Your task to perform on an android device: Add asus rog to the cart on amazon Image 0: 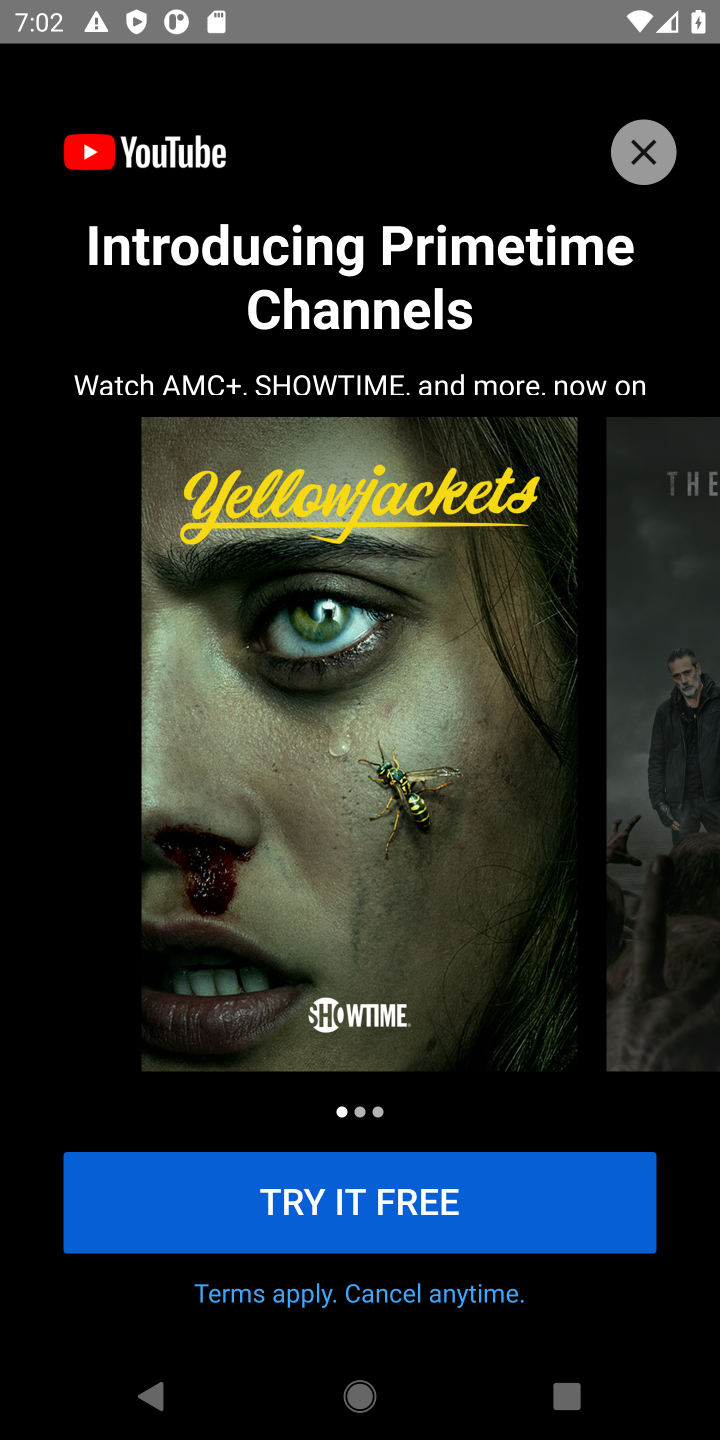
Step 0: press home button
Your task to perform on an android device: Add asus rog to the cart on amazon Image 1: 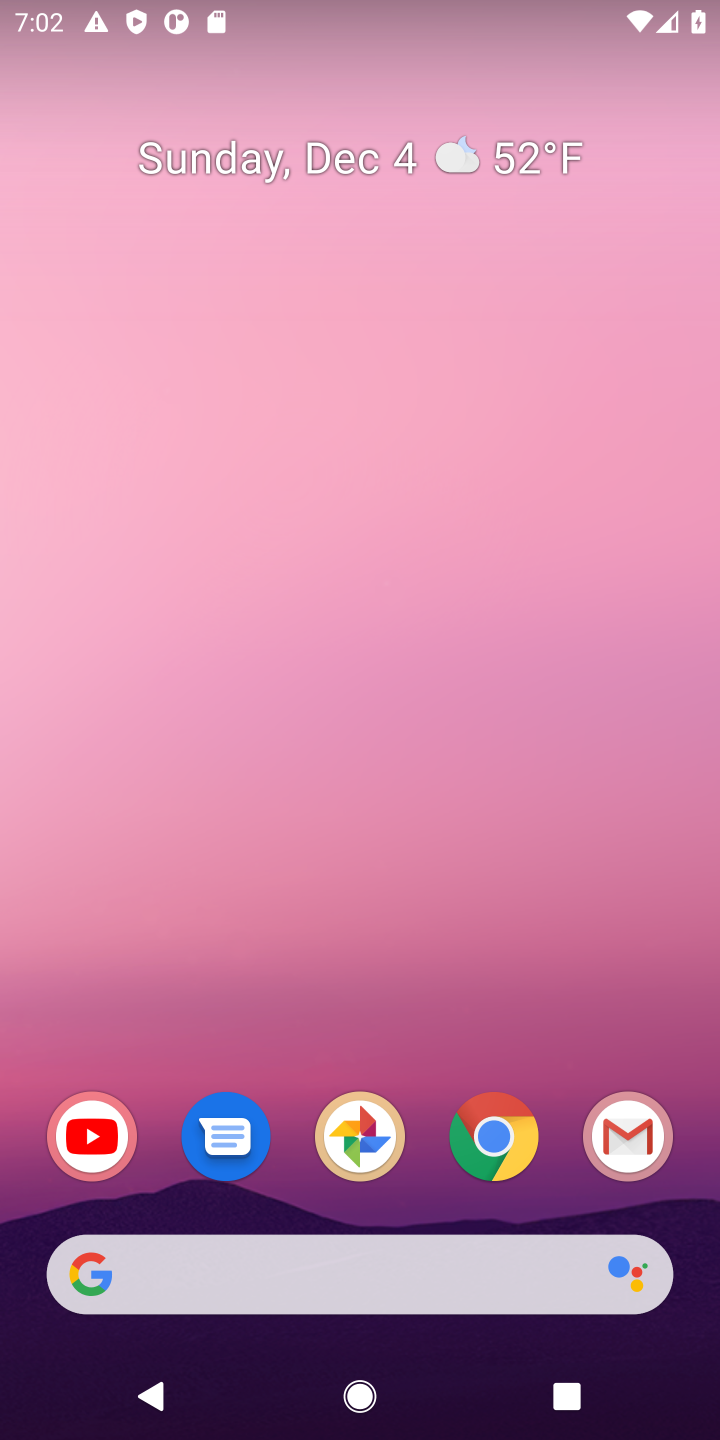
Step 1: click (502, 1140)
Your task to perform on an android device: Add asus rog to the cart on amazon Image 2: 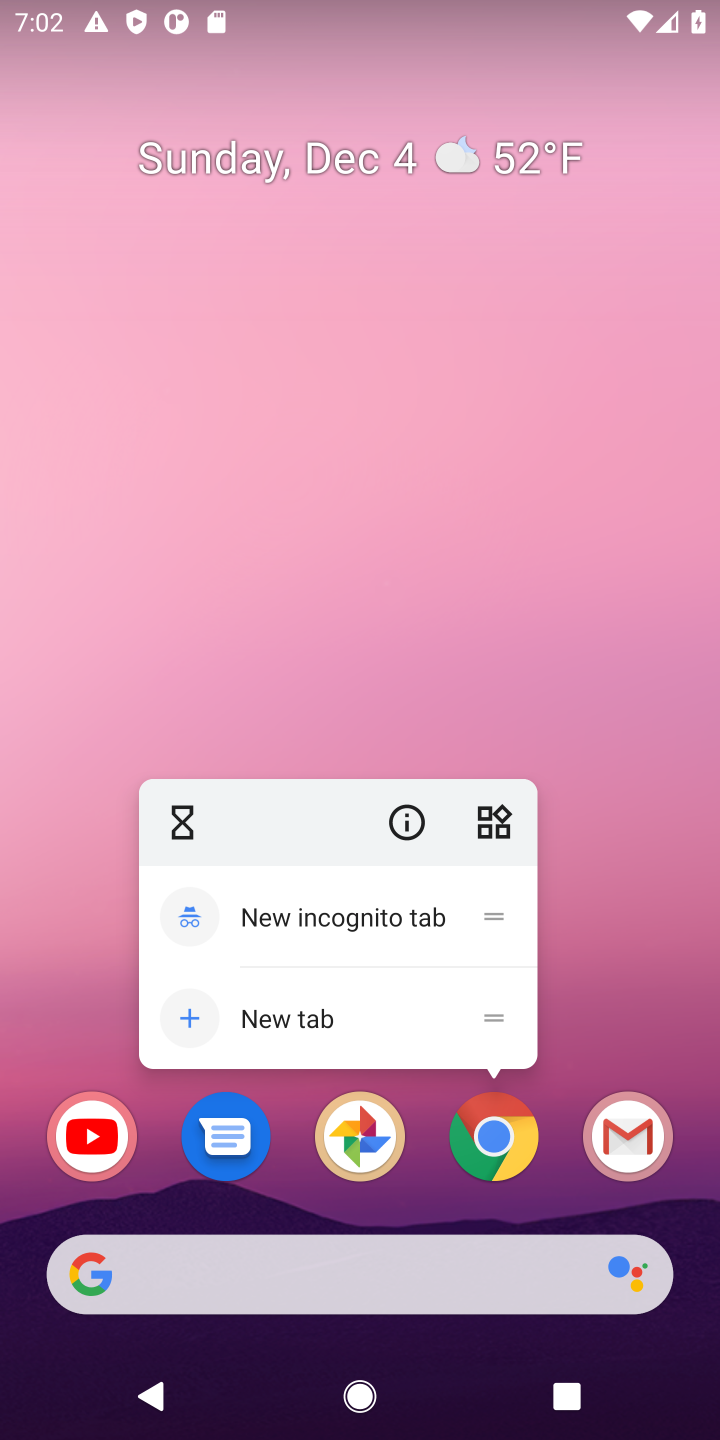
Step 2: click (502, 1140)
Your task to perform on an android device: Add asus rog to the cart on amazon Image 3: 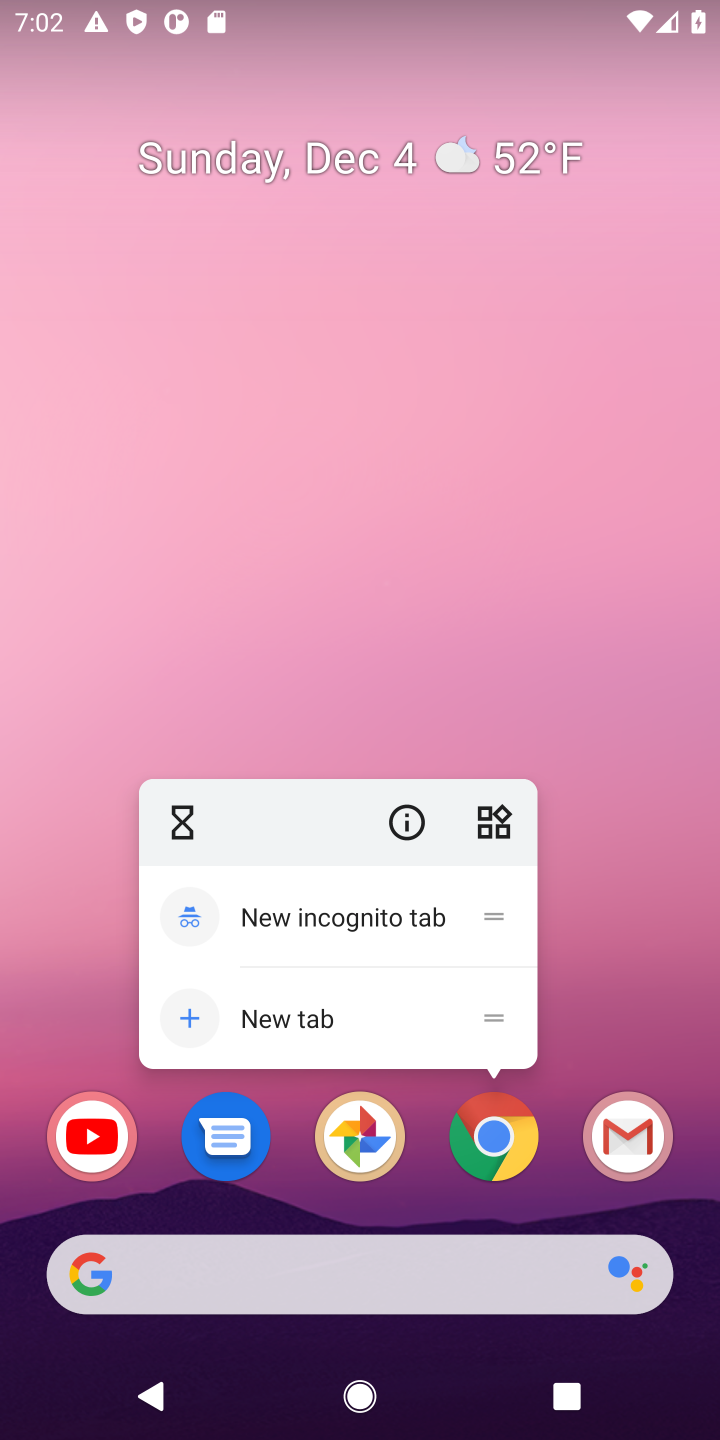
Step 3: click (502, 1140)
Your task to perform on an android device: Add asus rog to the cart on amazon Image 4: 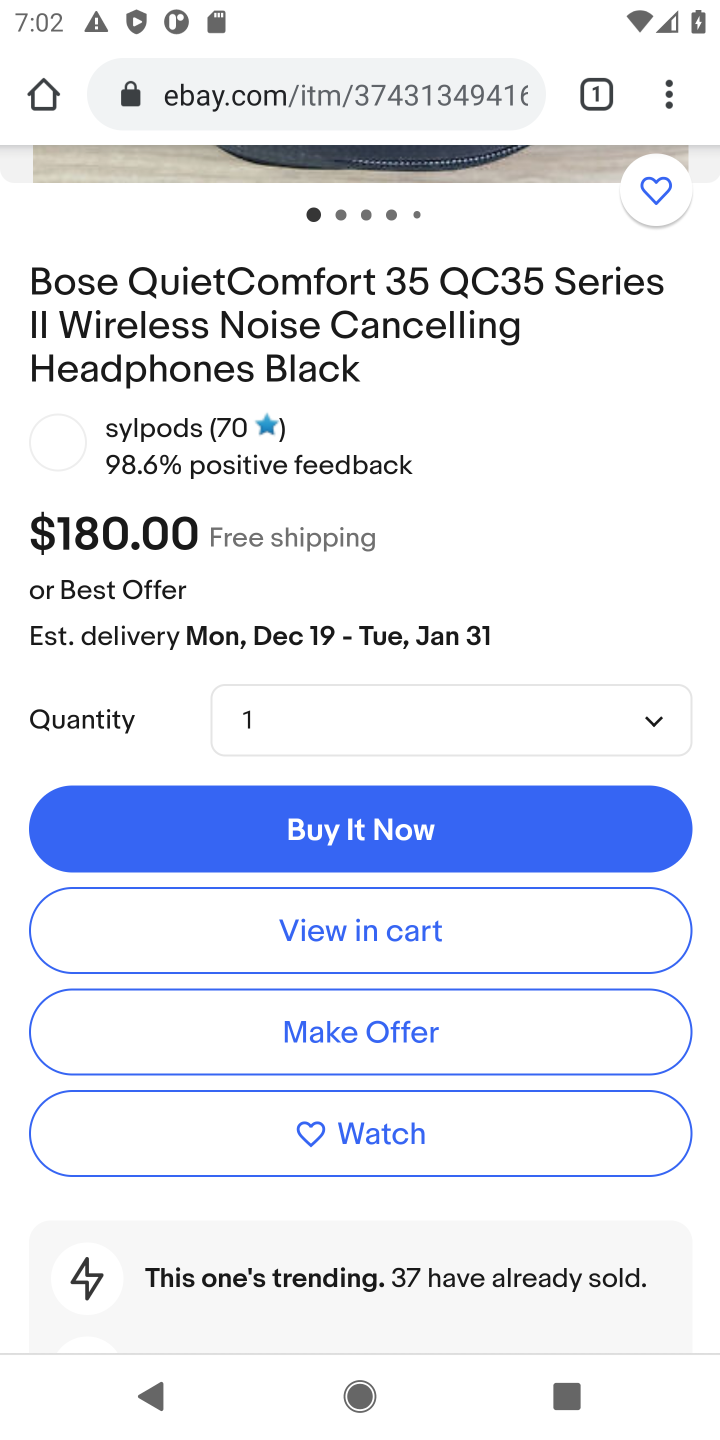
Step 4: click (235, 96)
Your task to perform on an android device: Add asus rog to the cart on amazon Image 5: 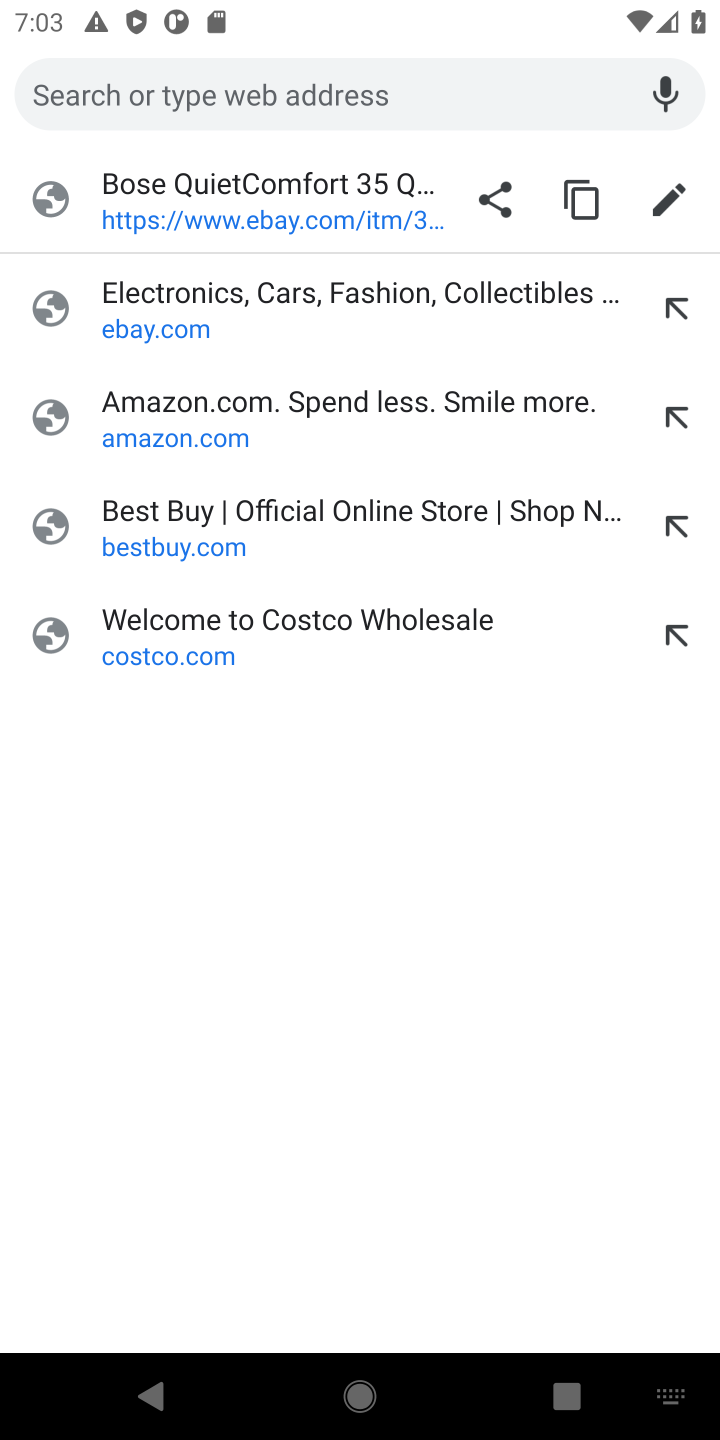
Step 5: click (152, 405)
Your task to perform on an android device: Add asus rog to the cart on amazon Image 6: 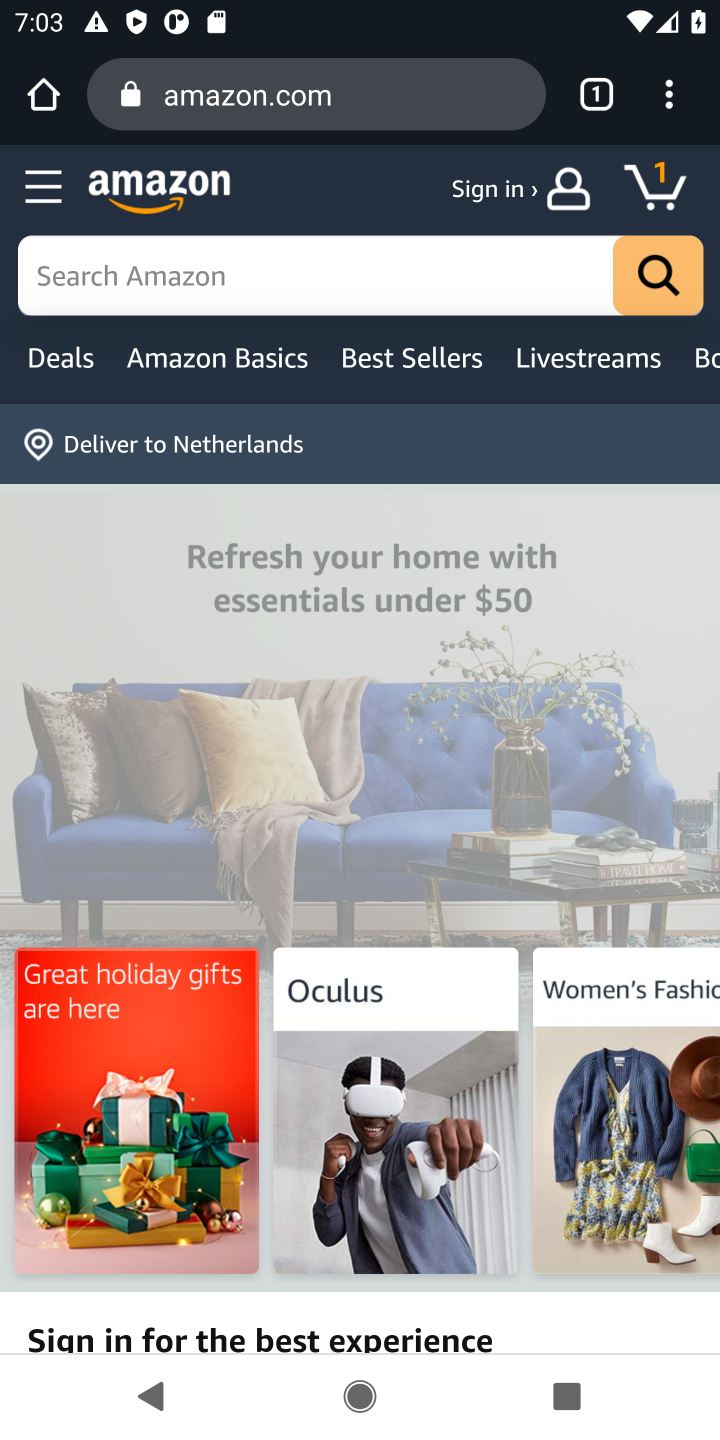
Step 6: click (177, 252)
Your task to perform on an android device: Add asus rog to the cart on amazon Image 7: 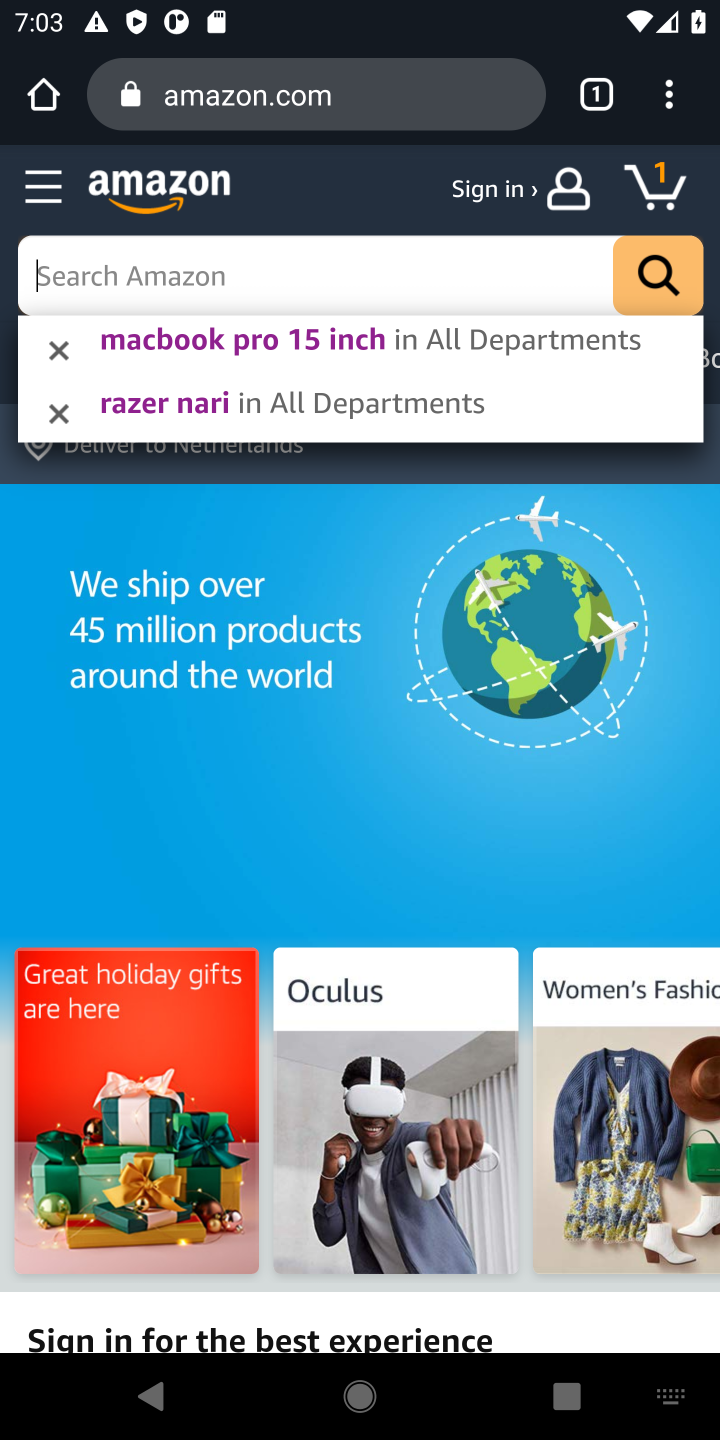
Step 7: type "asus rog "
Your task to perform on an android device: Add asus rog to the cart on amazon Image 8: 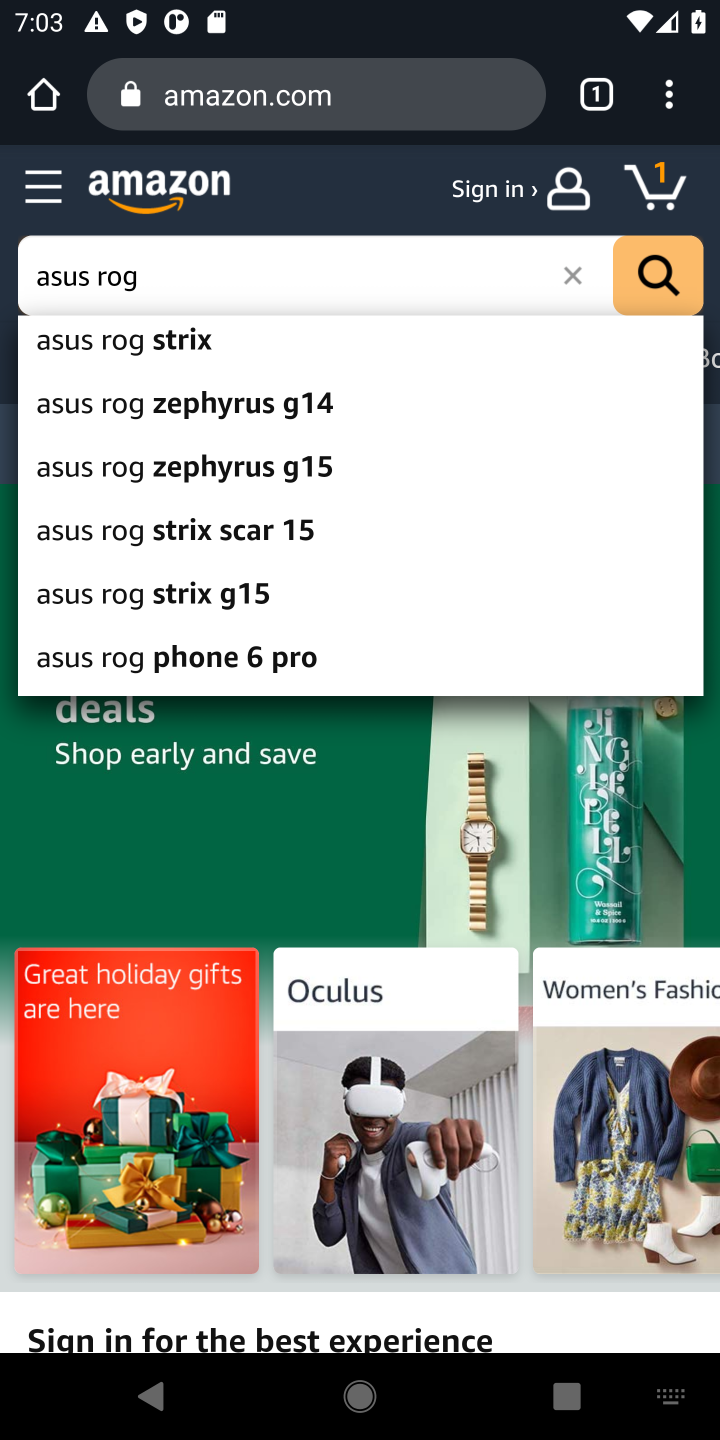
Step 8: click (645, 277)
Your task to perform on an android device: Add asus rog to the cart on amazon Image 9: 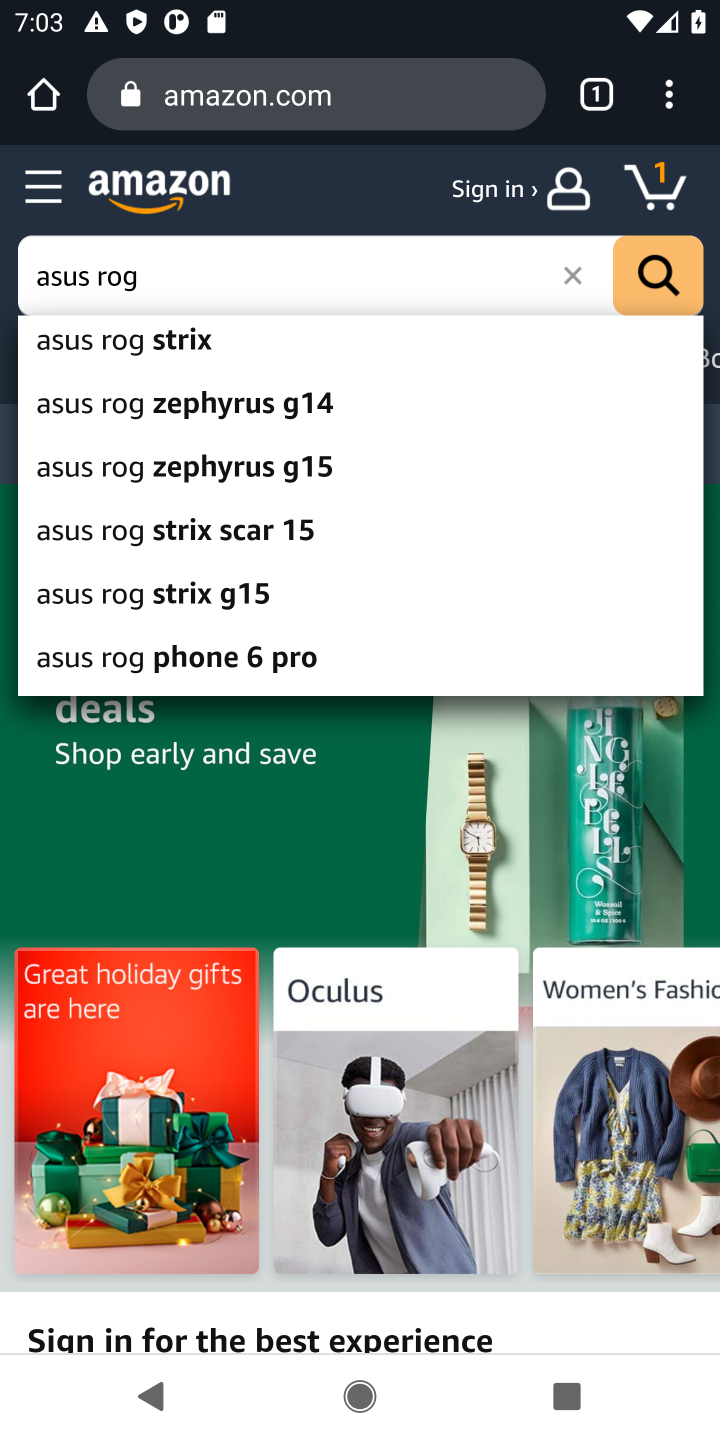
Step 9: click (656, 272)
Your task to perform on an android device: Add asus rog to the cart on amazon Image 10: 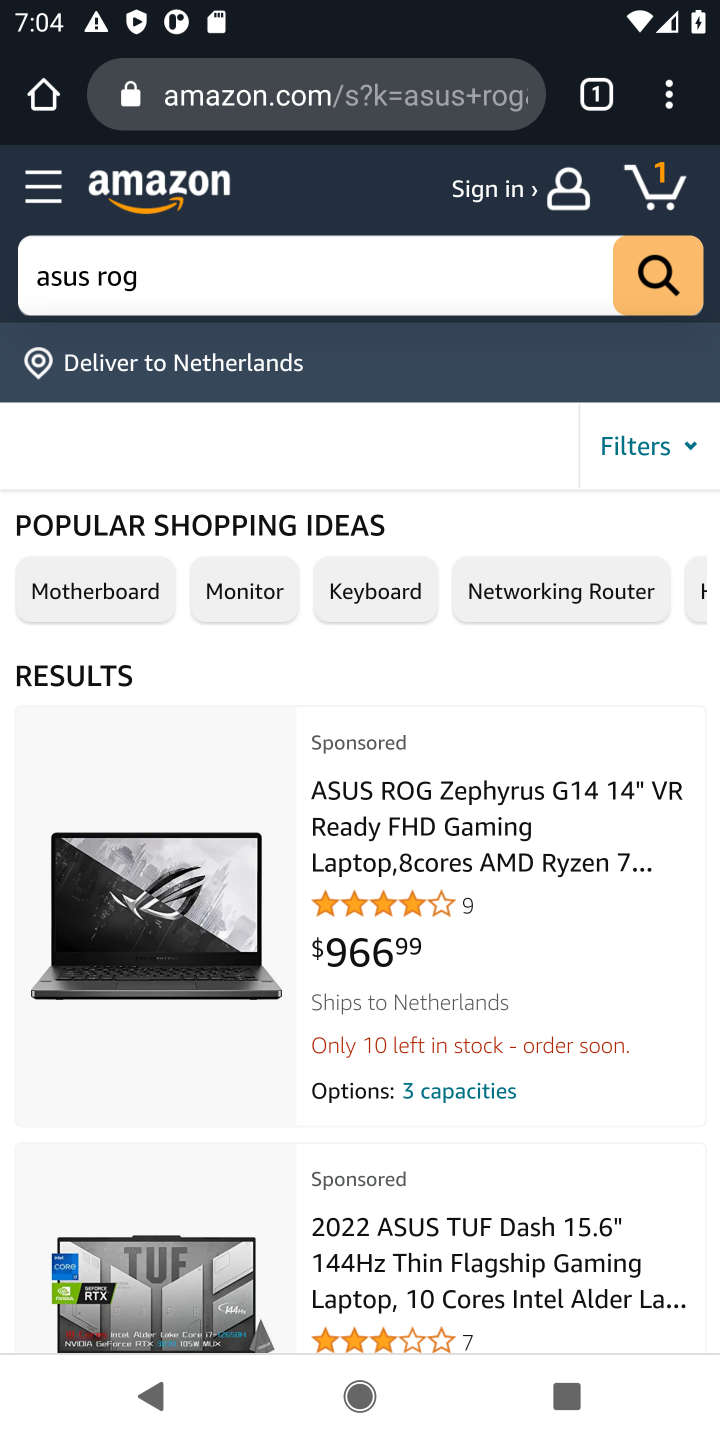
Step 10: click (377, 881)
Your task to perform on an android device: Add asus rog to the cart on amazon Image 11: 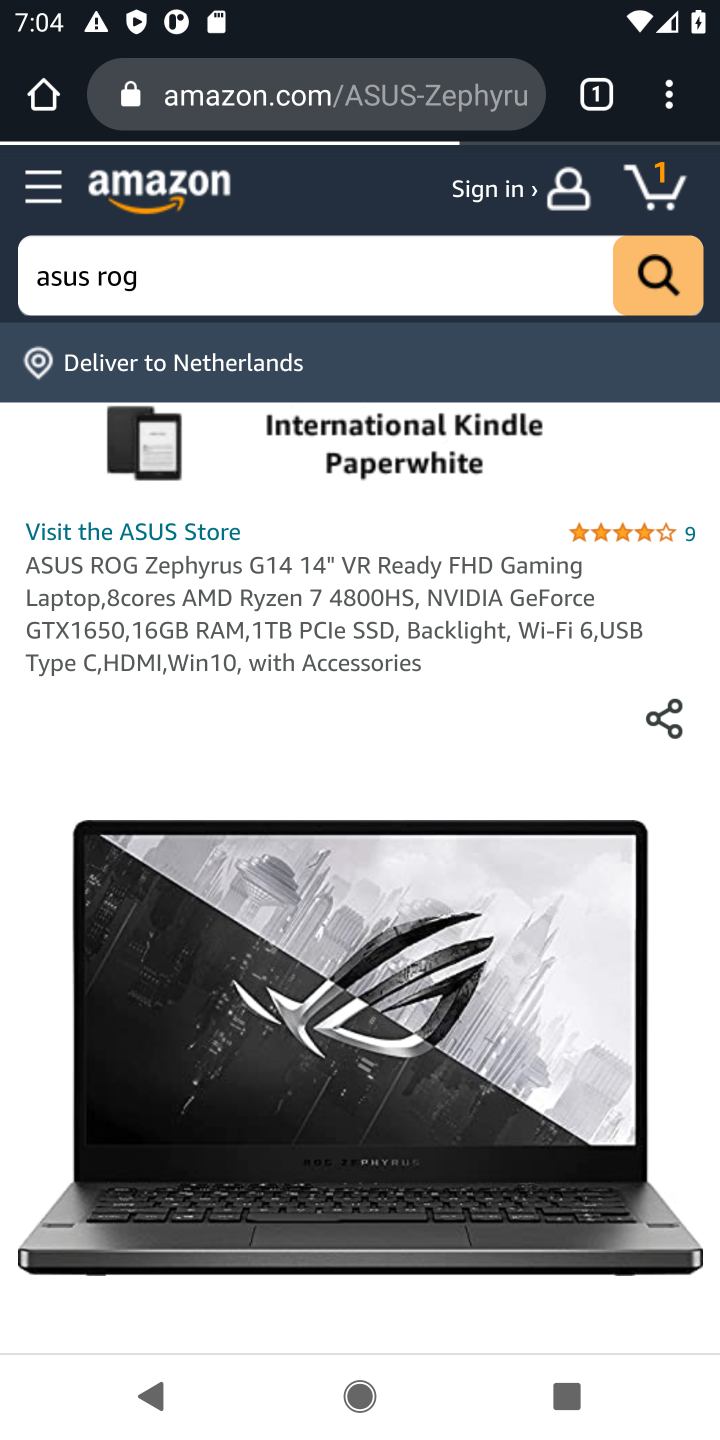
Step 11: drag from (374, 1005) to (369, 419)
Your task to perform on an android device: Add asus rog to the cart on amazon Image 12: 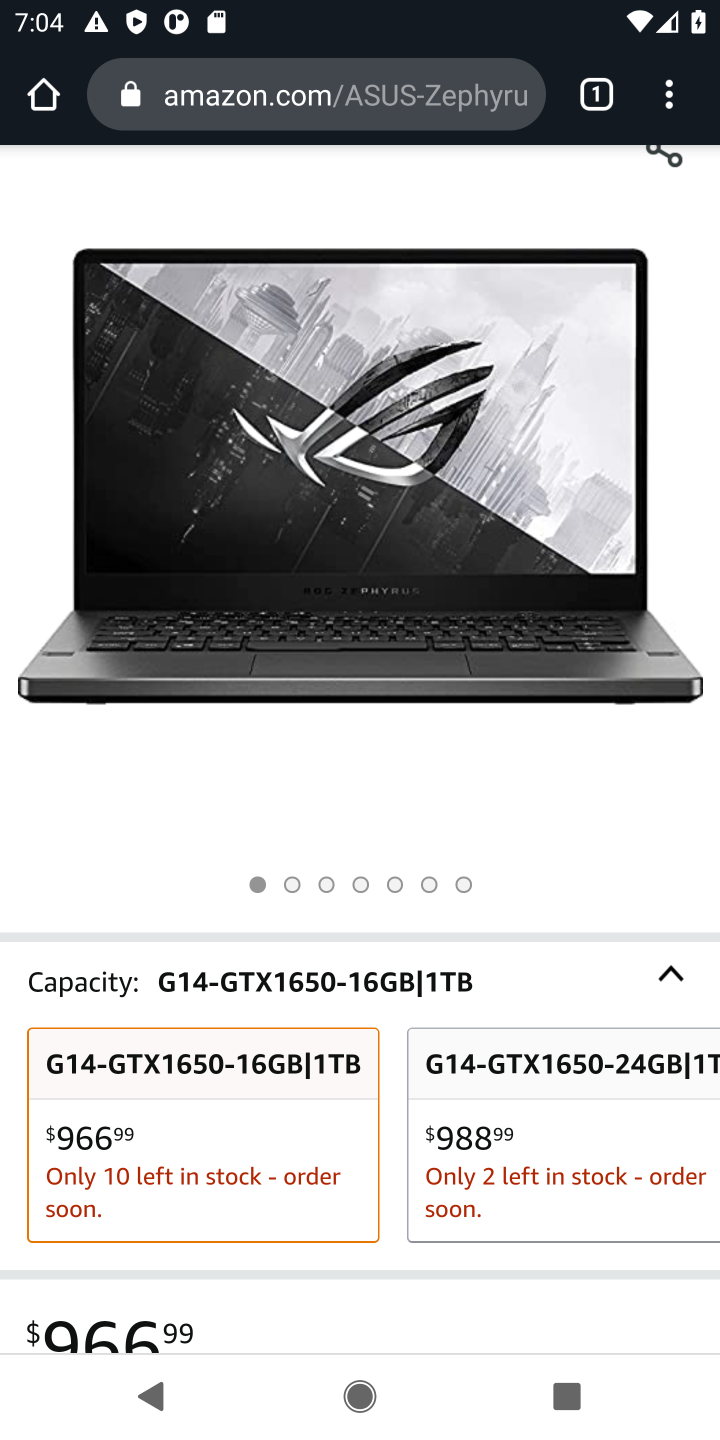
Step 12: drag from (654, 1182) to (593, 505)
Your task to perform on an android device: Add asus rog to the cart on amazon Image 13: 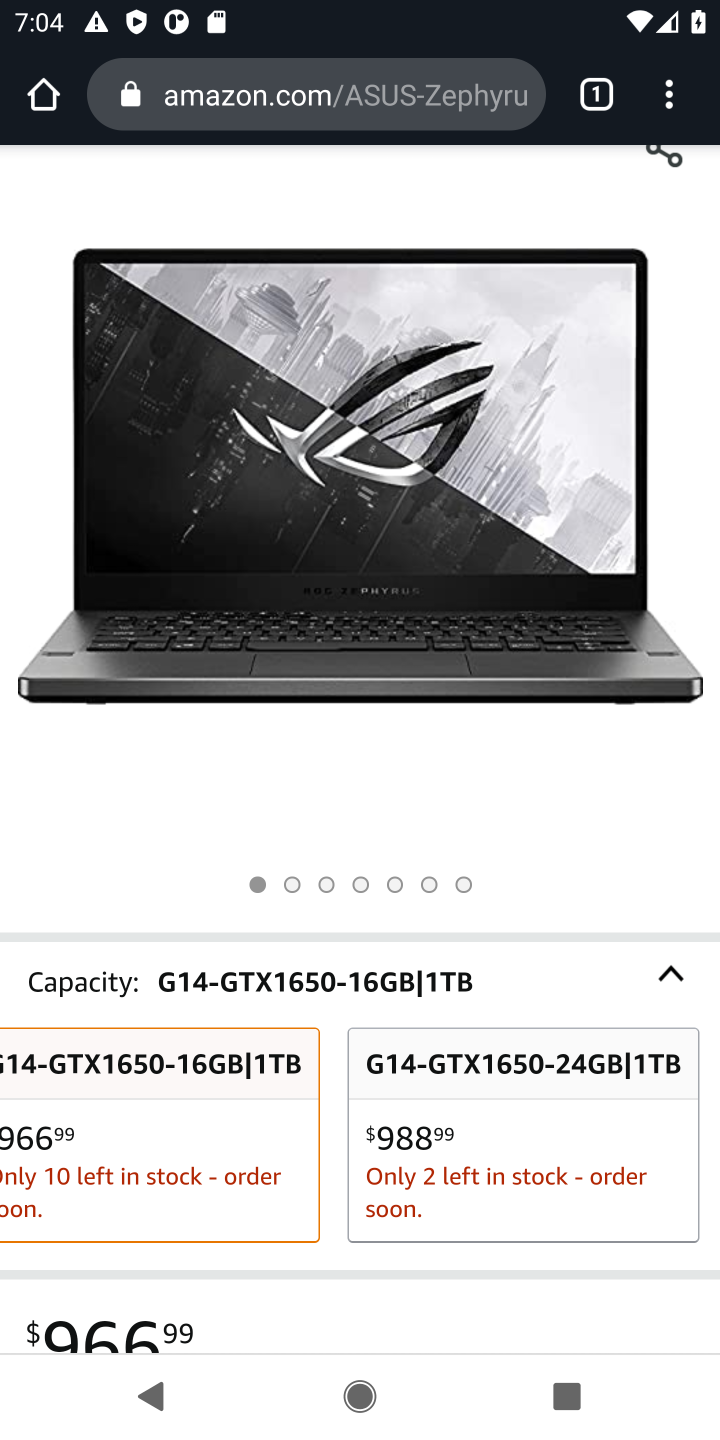
Step 13: drag from (549, 840) to (523, 348)
Your task to perform on an android device: Add asus rog to the cart on amazon Image 14: 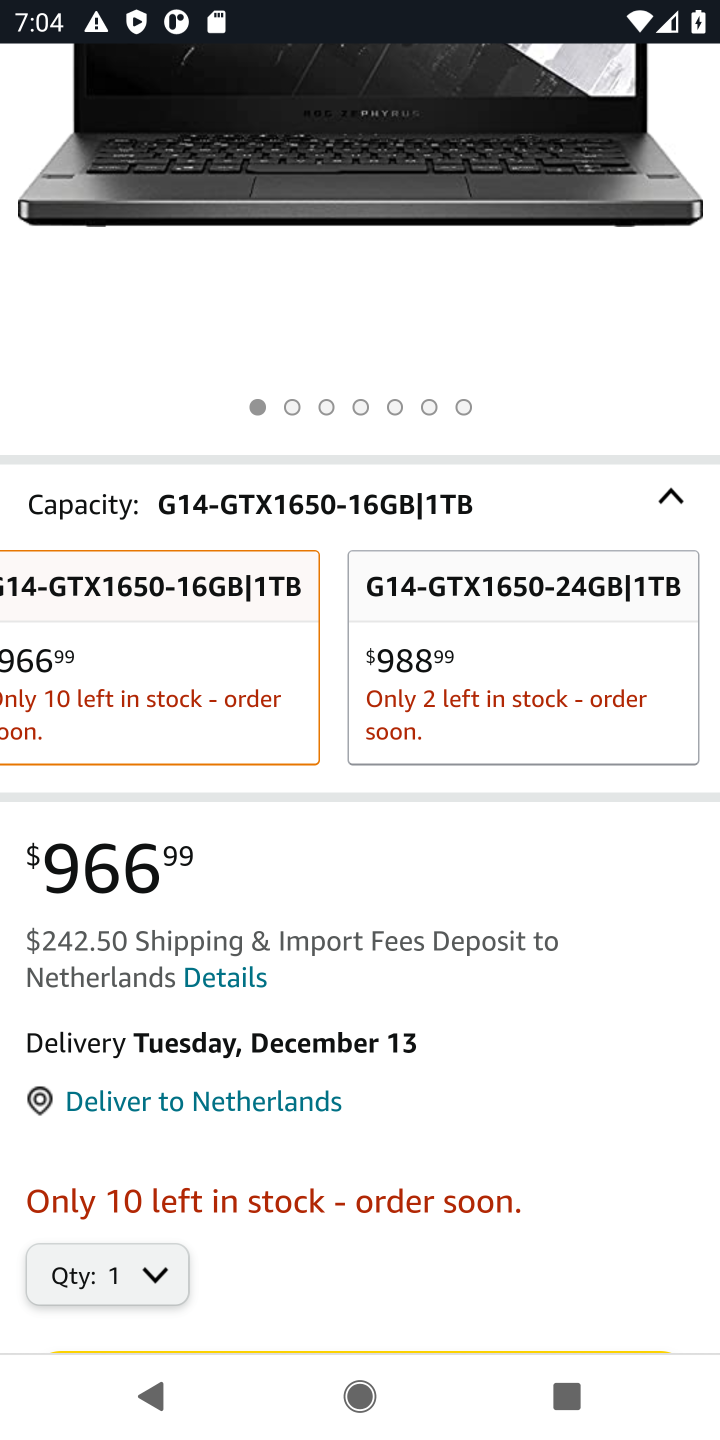
Step 14: drag from (551, 994) to (531, 439)
Your task to perform on an android device: Add asus rog to the cart on amazon Image 15: 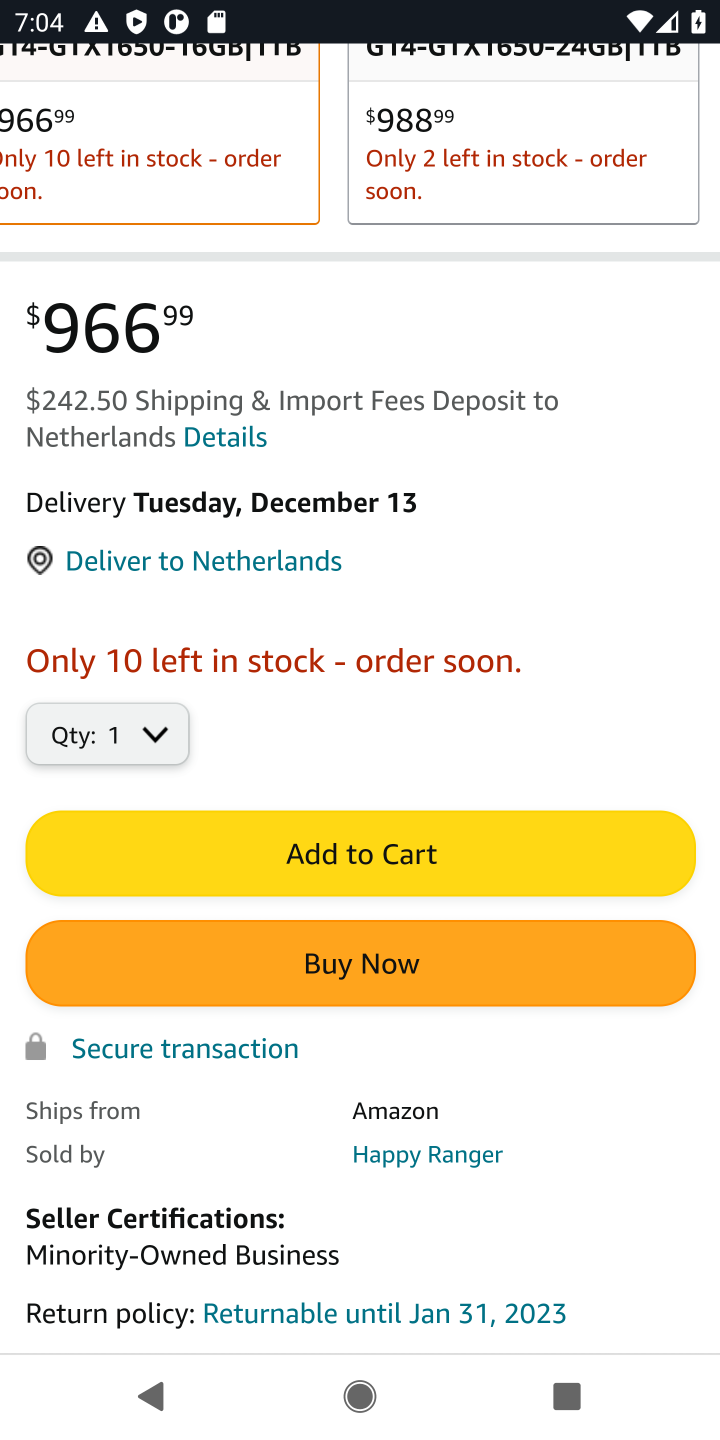
Step 15: click (362, 854)
Your task to perform on an android device: Add asus rog to the cart on amazon Image 16: 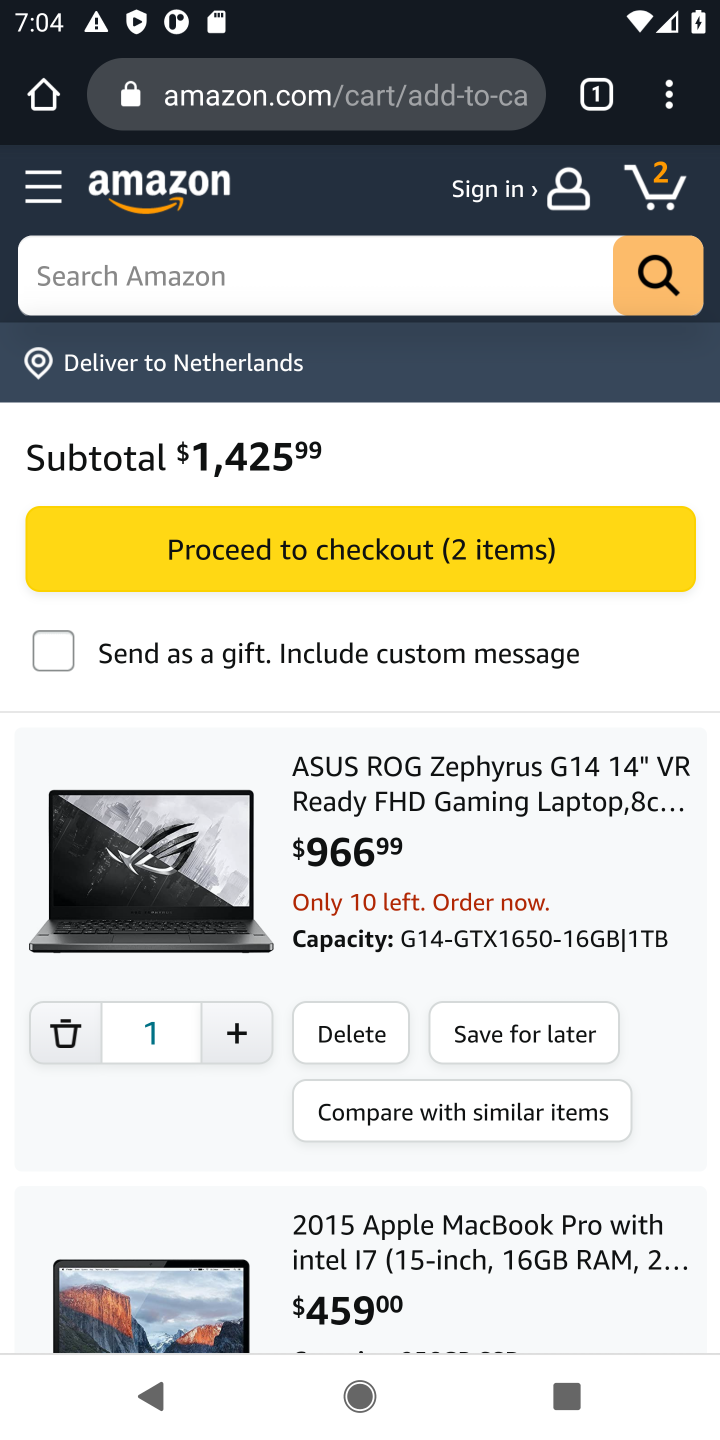
Step 16: task complete